Your task to perform on an android device: Open calendar and show me the second week of next month Image 0: 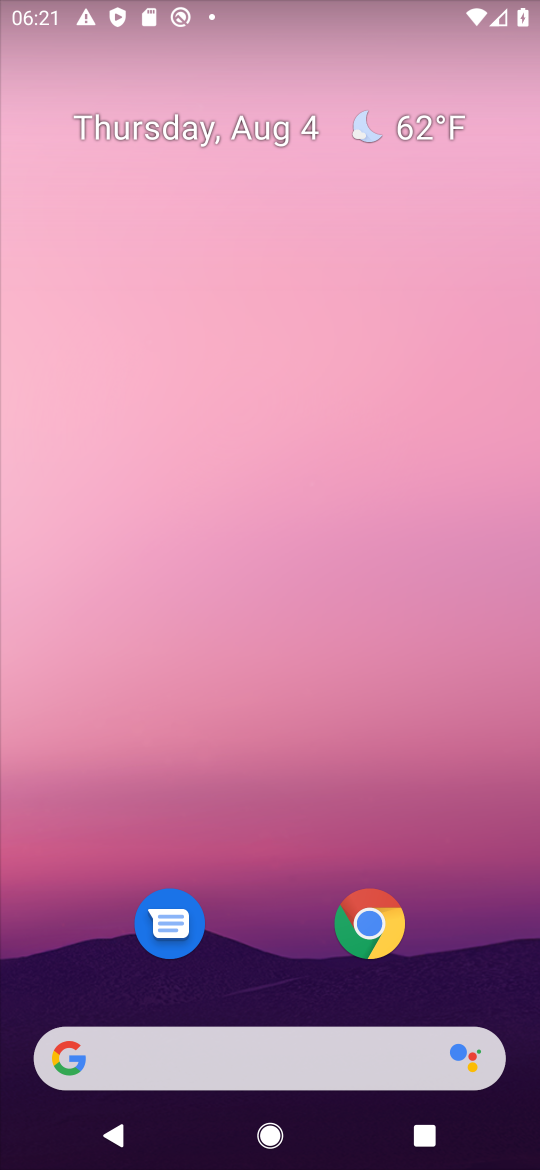
Step 0: drag from (448, 972) to (493, 396)
Your task to perform on an android device: Open calendar and show me the second week of next month Image 1: 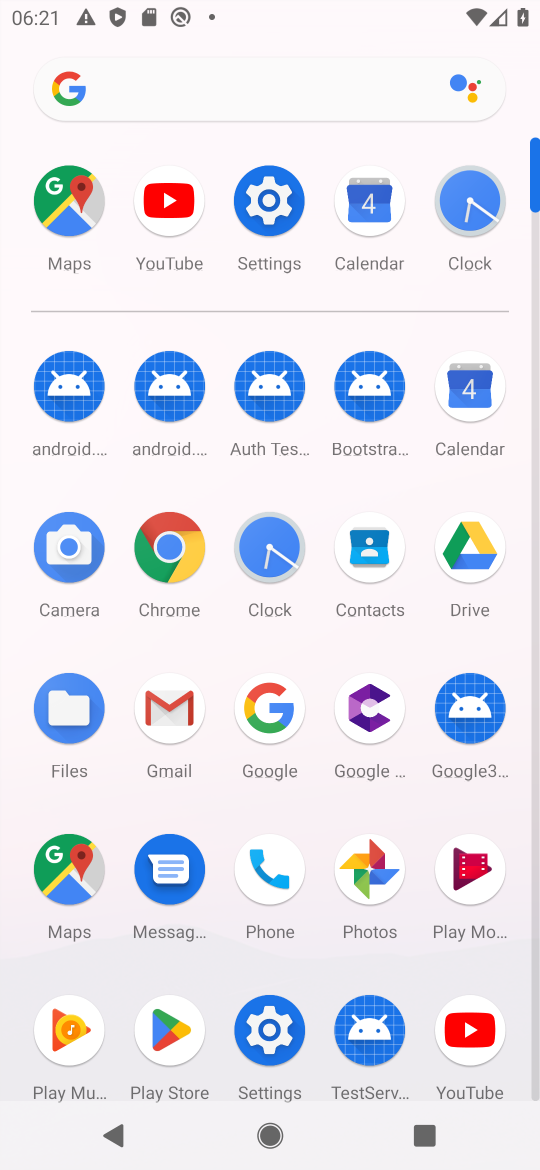
Step 1: click (473, 398)
Your task to perform on an android device: Open calendar and show me the second week of next month Image 2: 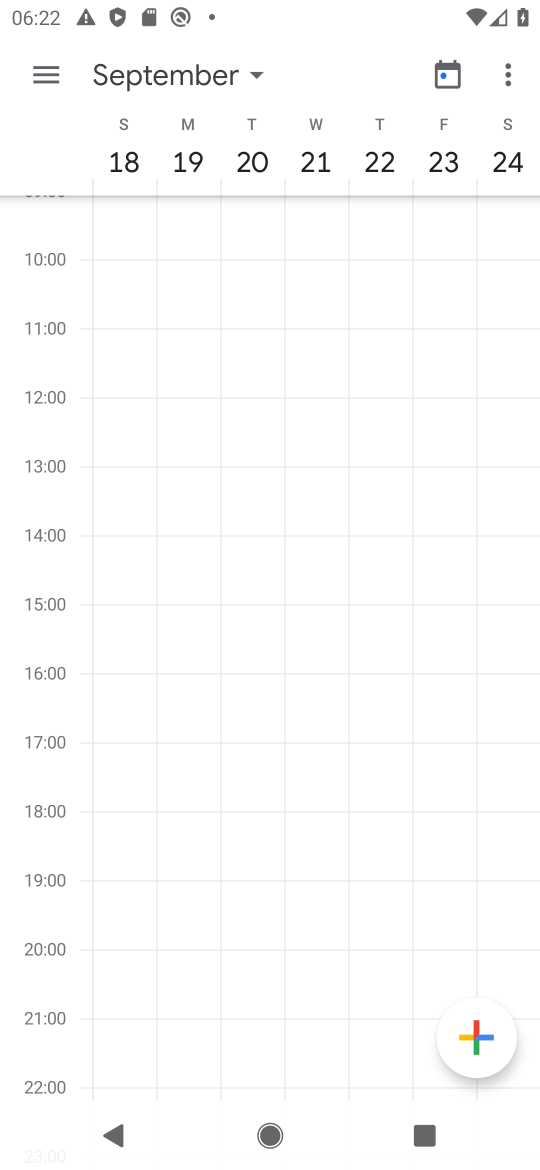
Step 2: click (151, 73)
Your task to perform on an android device: Open calendar and show me the second week of next month Image 3: 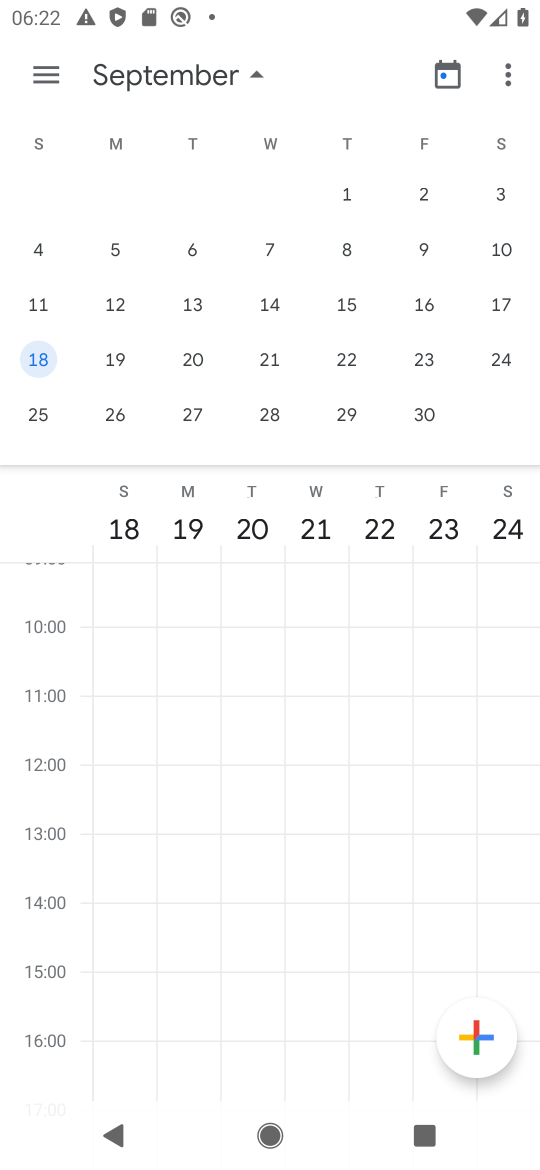
Step 3: click (257, 297)
Your task to perform on an android device: Open calendar and show me the second week of next month Image 4: 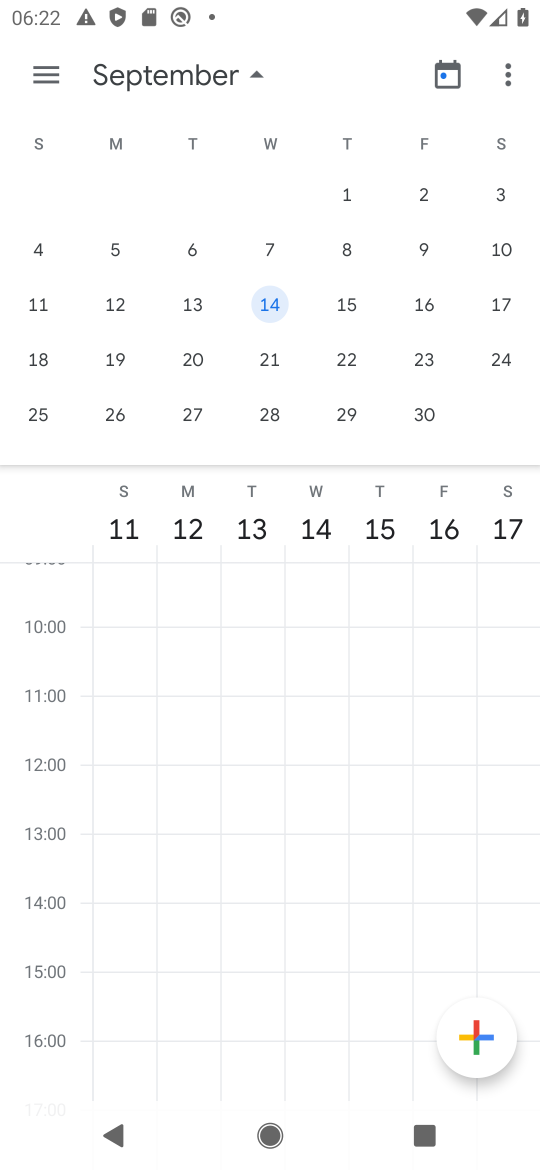
Step 4: task complete